Your task to perform on an android device: toggle improve location accuracy Image 0: 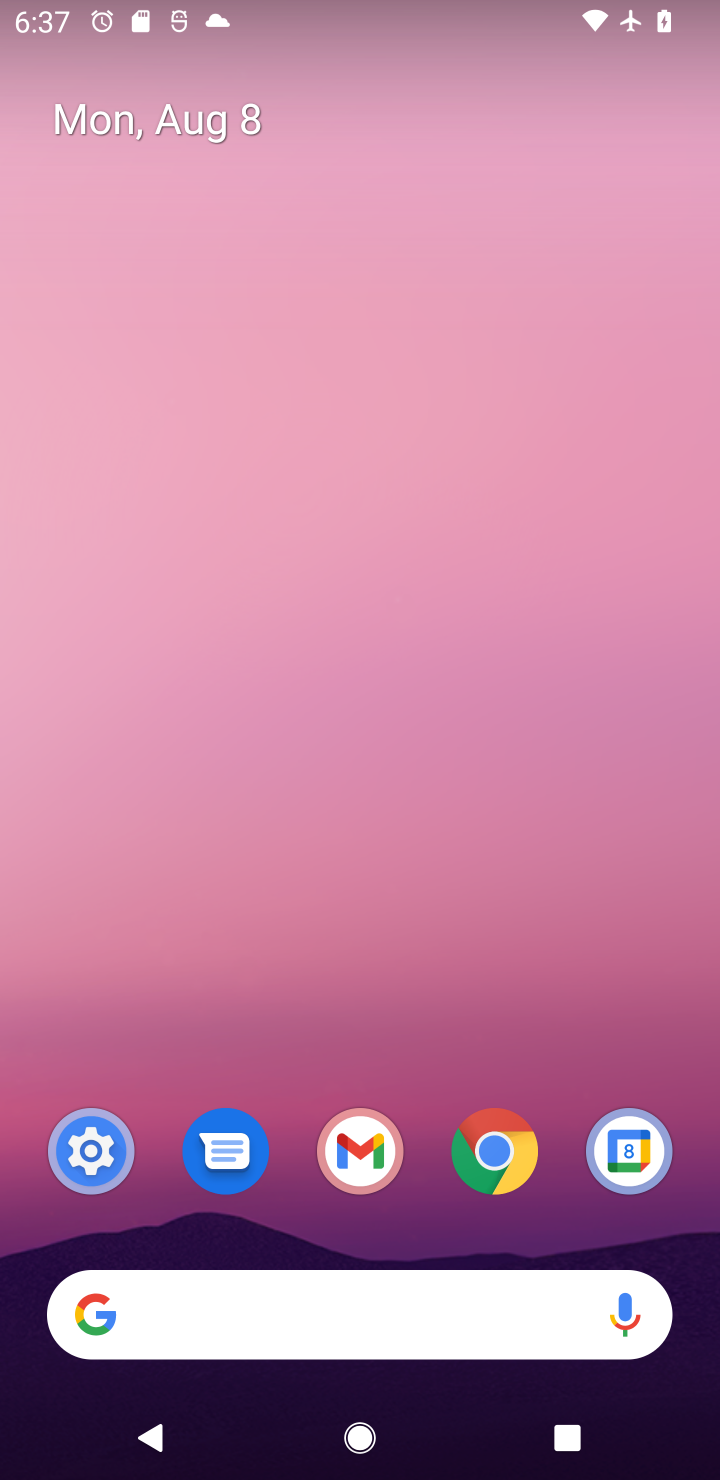
Step 0: click (113, 1172)
Your task to perform on an android device: toggle improve location accuracy Image 1: 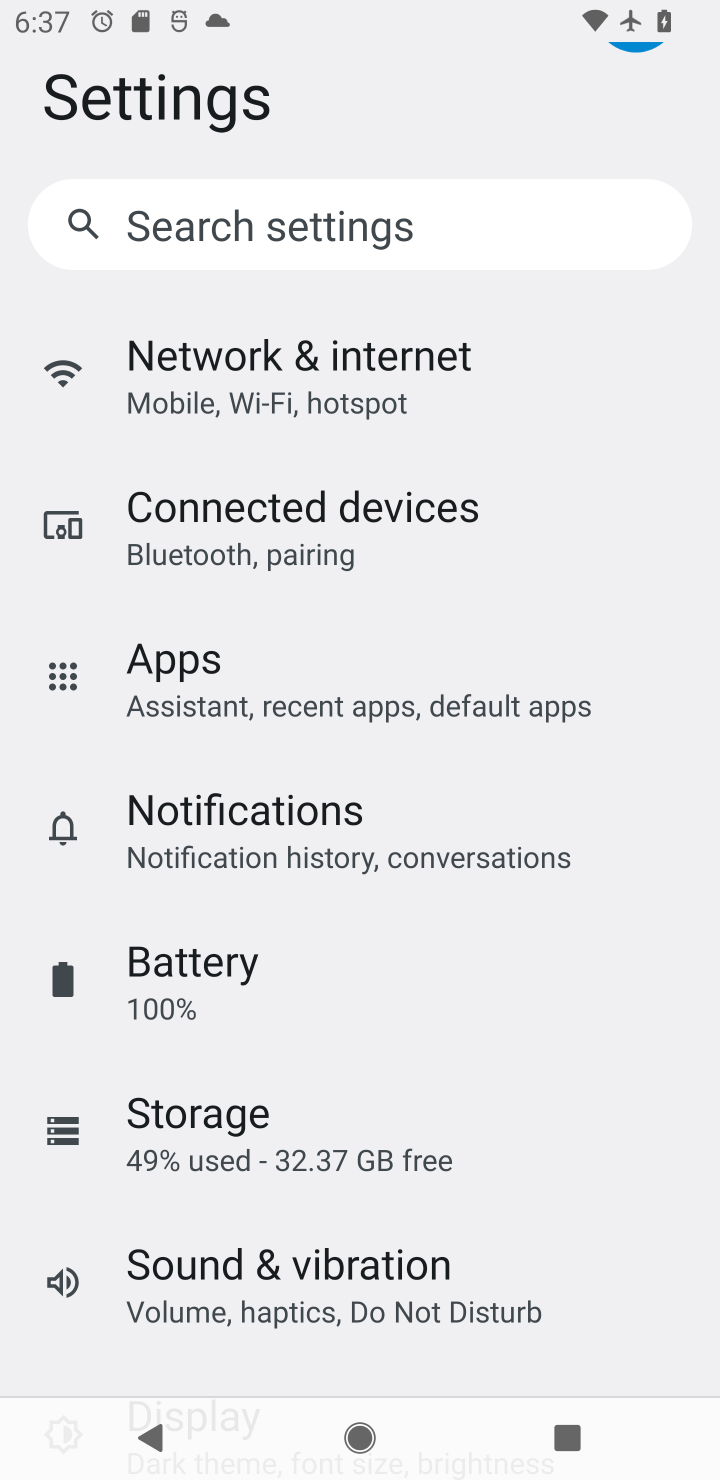
Step 1: drag from (329, 1065) to (343, 443)
Your task to perform on an android device: toggle improve location accuracy Image 2: 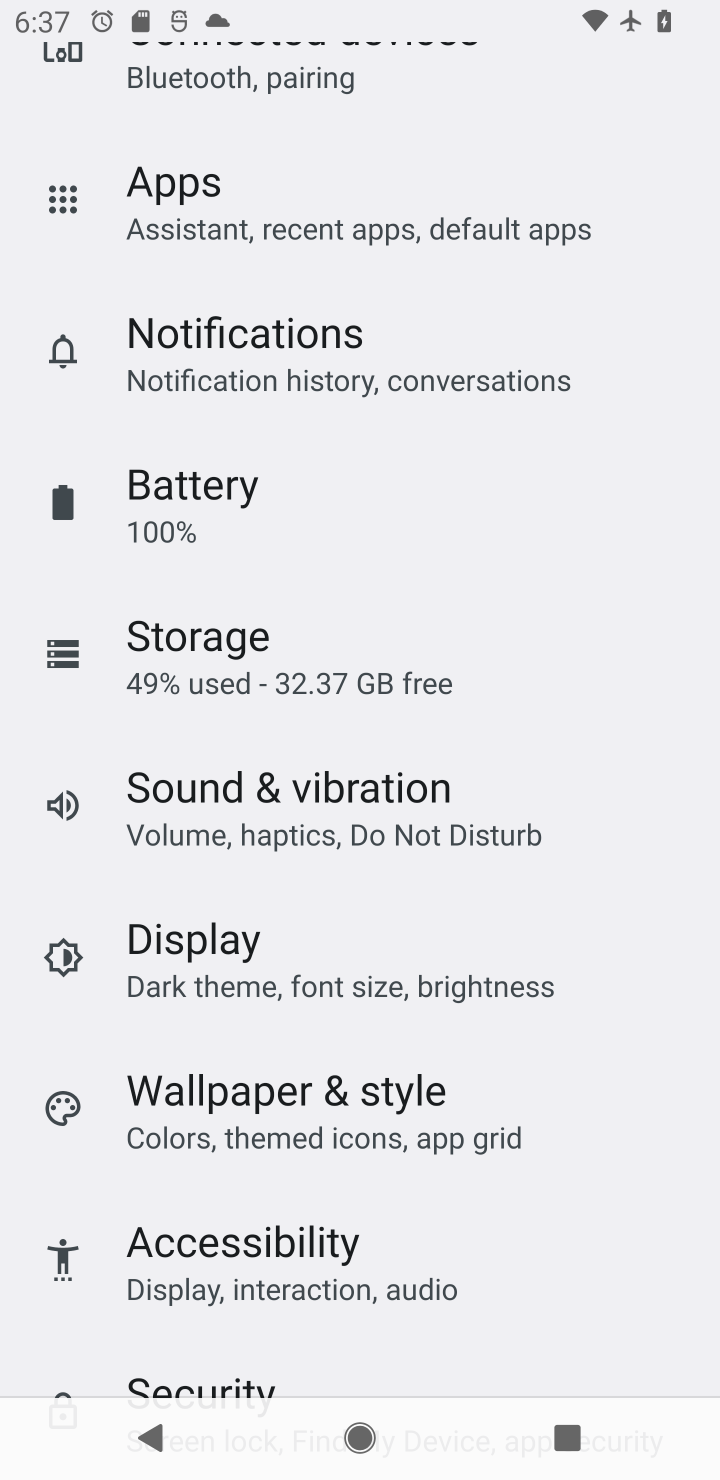
Step 2: drag from (309, 1085) to (362, 378)
Your task to perform on an android device: toggle improve location accuracy Image 3: 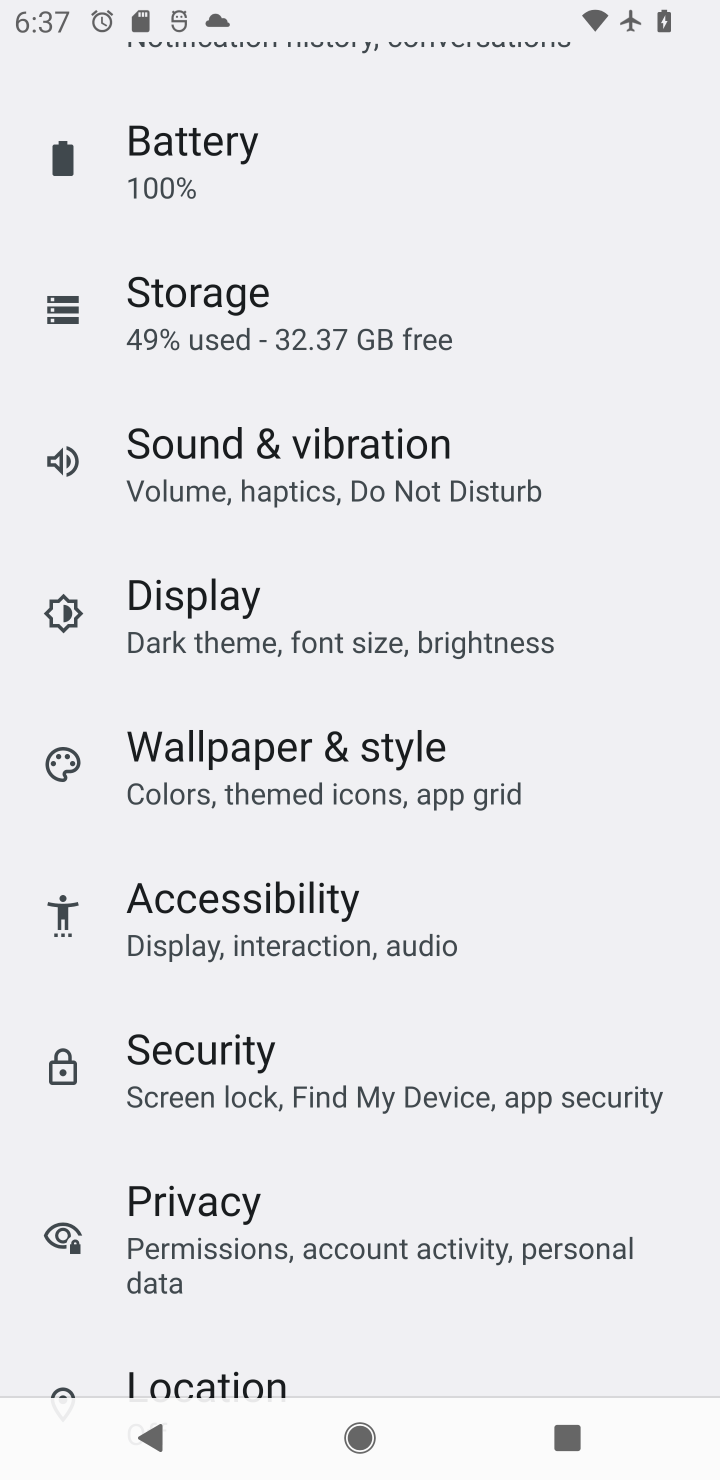
Step 3: drag from (281, 1121) to (337, 418)
Your task to perform on an android device: toggle improve location accuracy Image 4: 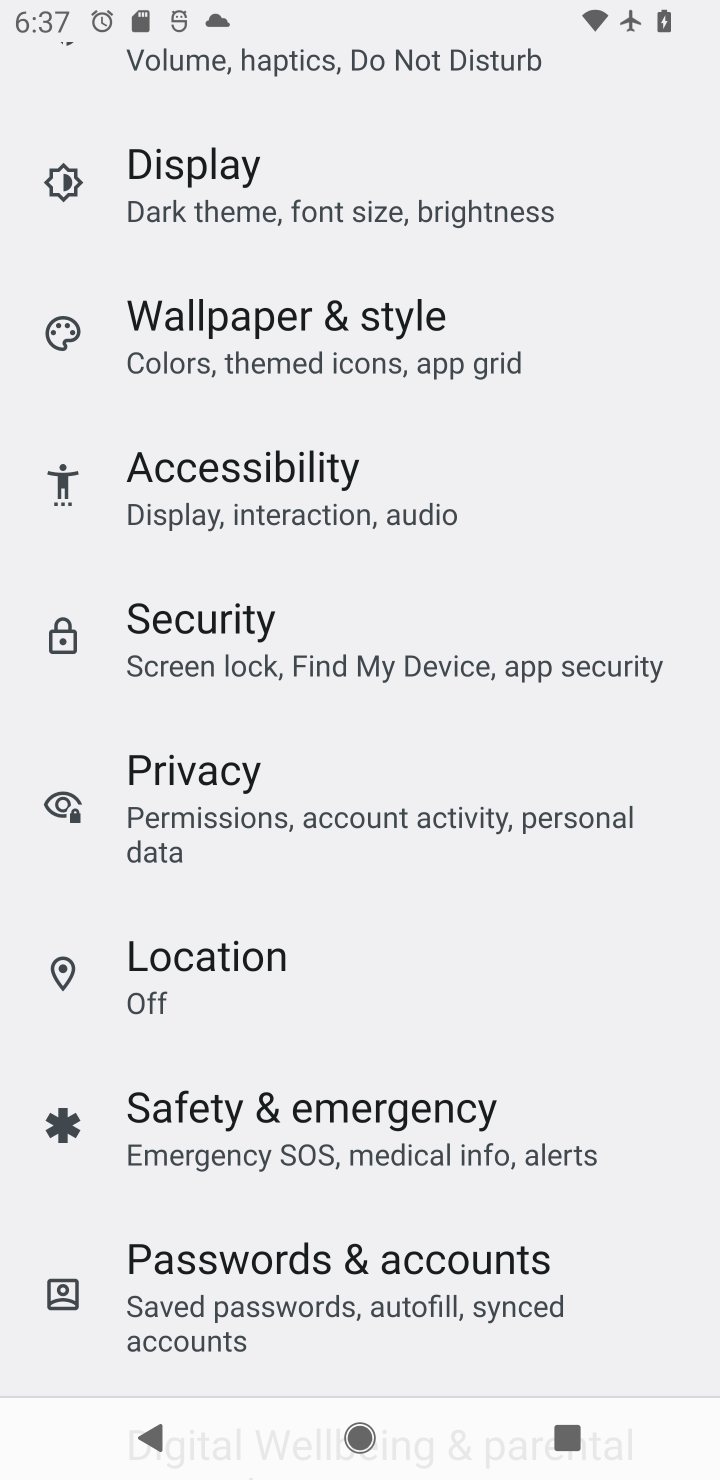
Step 4: click (179, 943)
Your task to perform on an android device: toggle improve location accuracy Image 5: 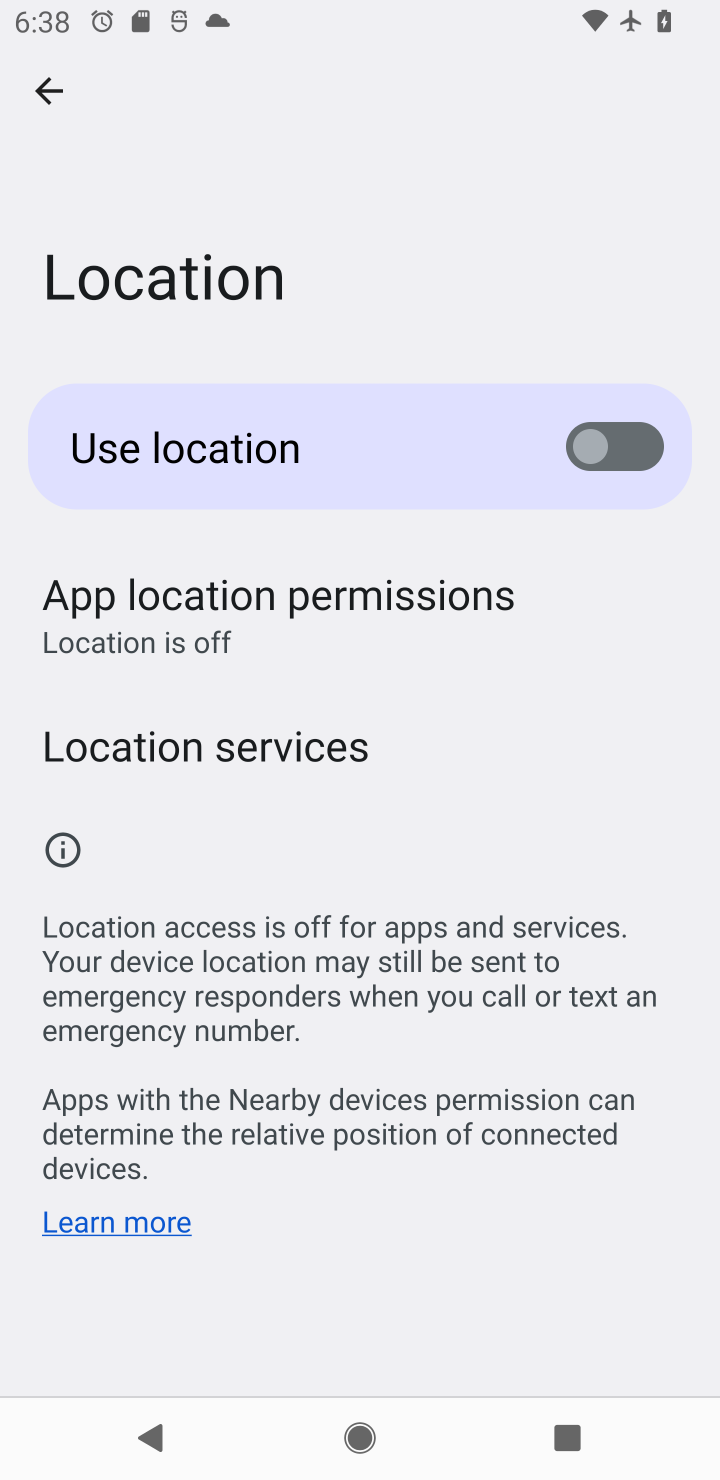
Step 5: click (244, 751)
Your task to perform on an android device: toggle improve location accuracy Image 6: 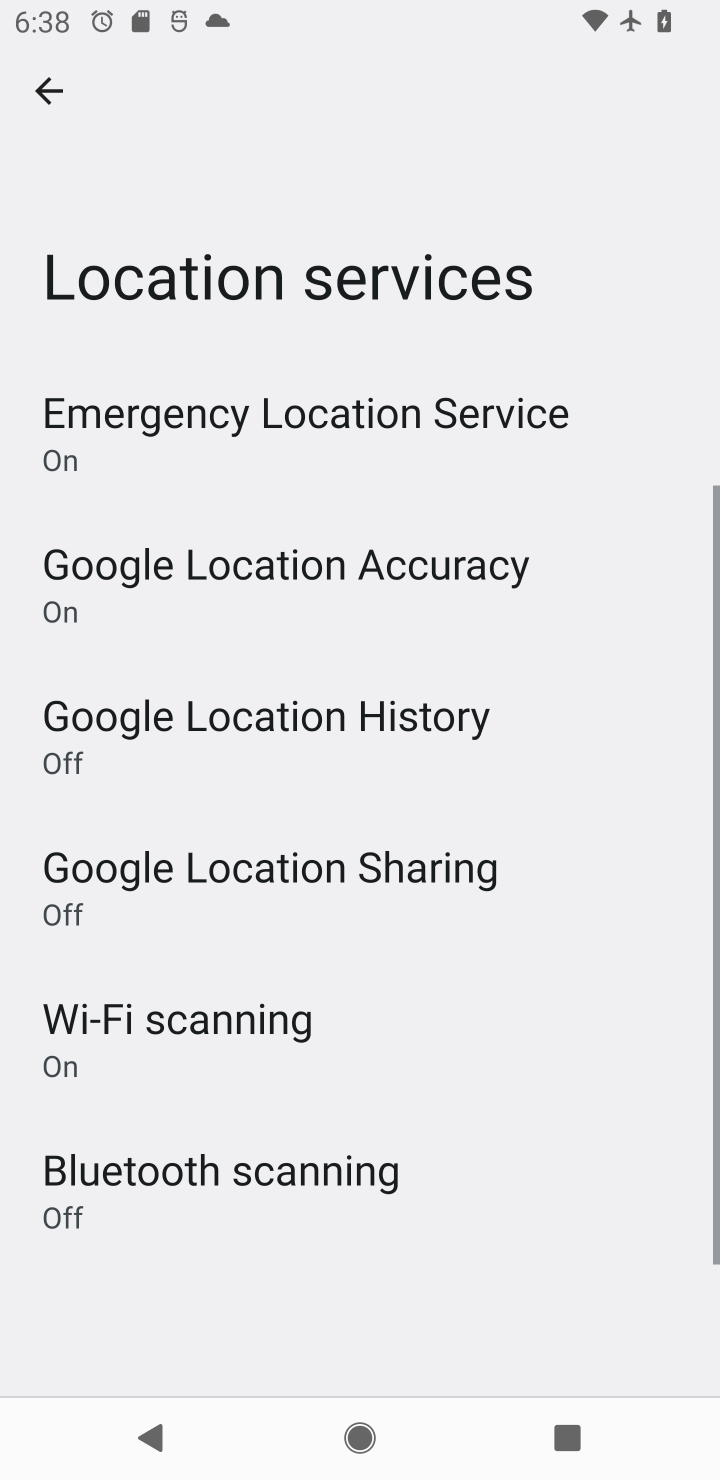
Step 6: click (290, 569)
Your task to perform on an android device: toggle improve location accuracy Image 7: 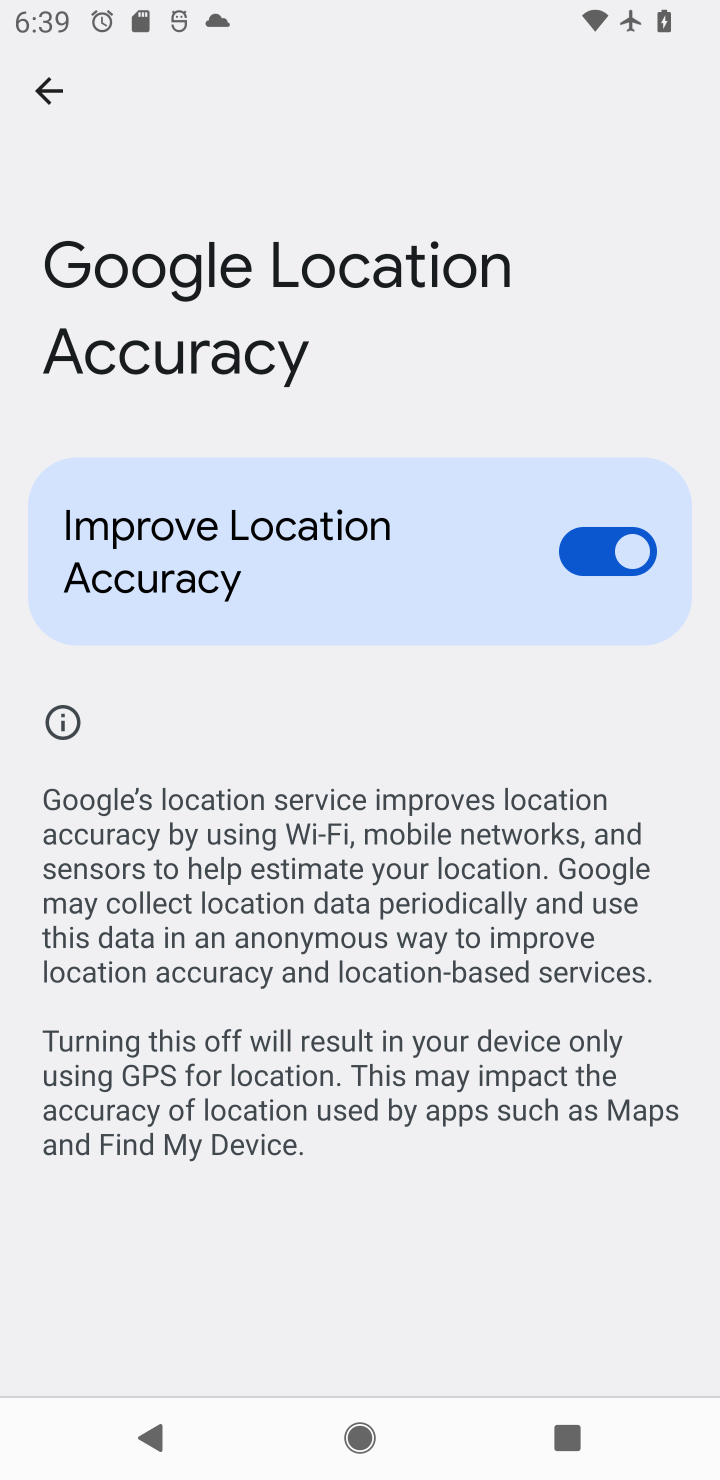
Step 7: click (571, 534)
Your task to perform on an android device: toggle improve location accuracy Image 8: 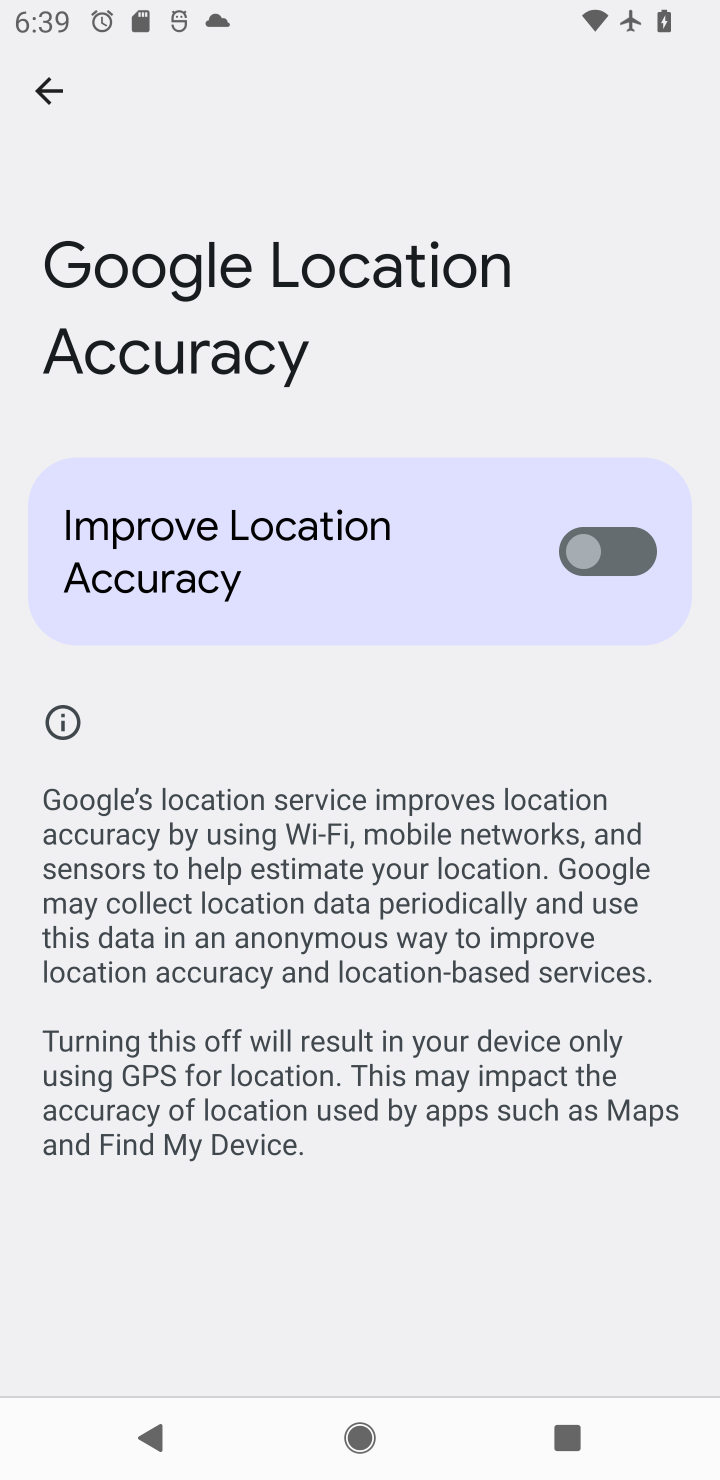
Step 8: task complete